Your task to perform on an android device: Find coffee shops on Maps Image 0: 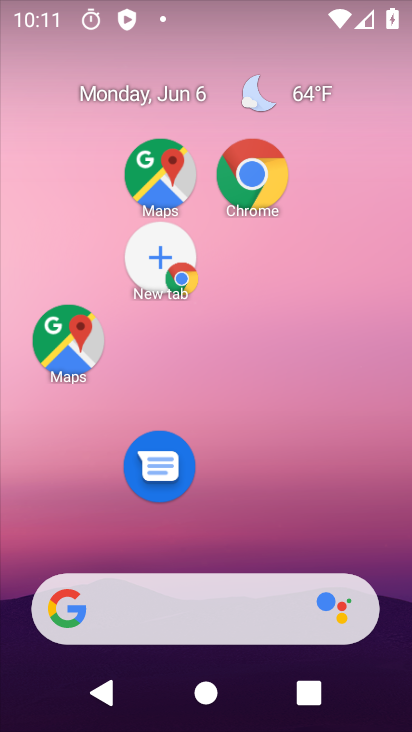
Step 0: drag from (264, 459) to (228, 184)
Your task to perform on an android device: Find coffee shops on Maps Image 1: 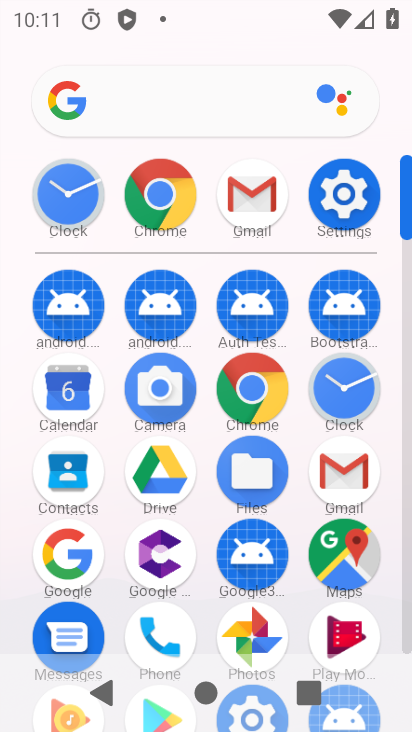
Step 1: click (319, 564)
Your task to perform on an android device: Find coffee shops on Maps Image 2: 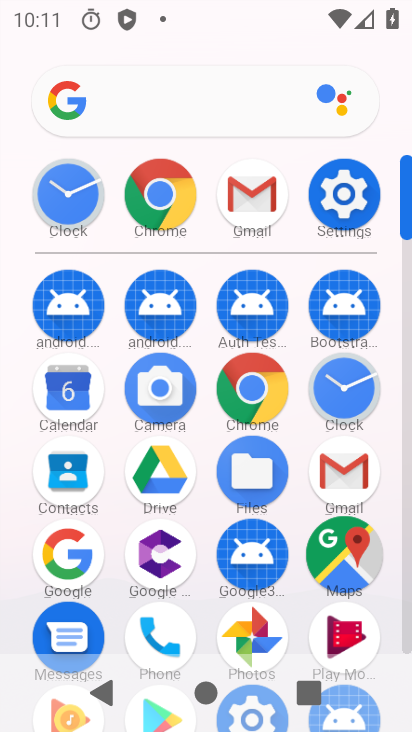
Step 2: click (330, 558)
Your task to perform on an android device: Find coffee shops on Maps Image 3: 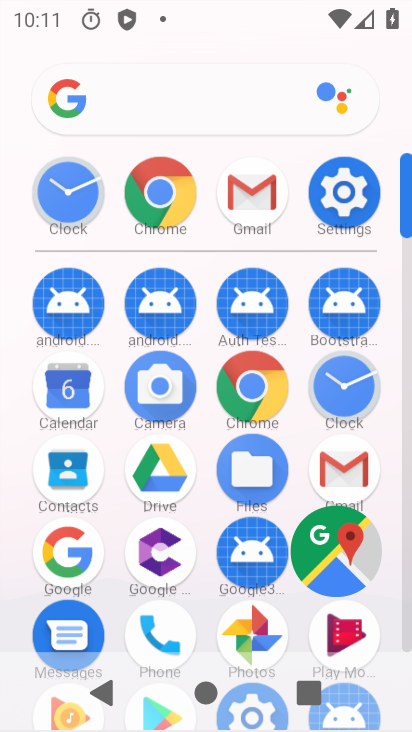
Step 3: click (330, 558)
Your task to perform on an android device: Find coffee shops on Maps Image 4: 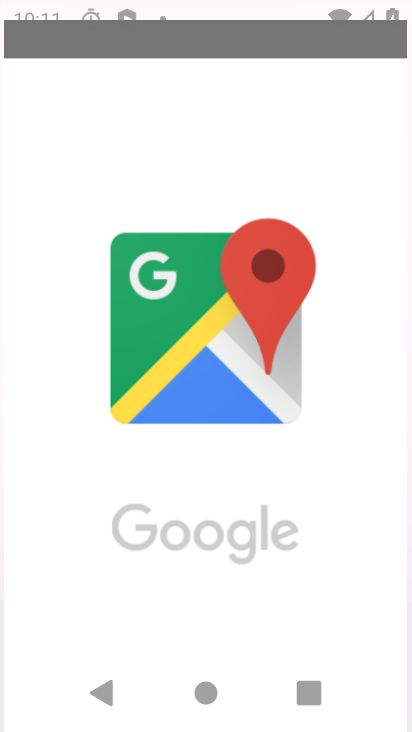
Step 4: click (331, 558)
Your task to perform on an android device: Find coffee shops on Maps Image 5: 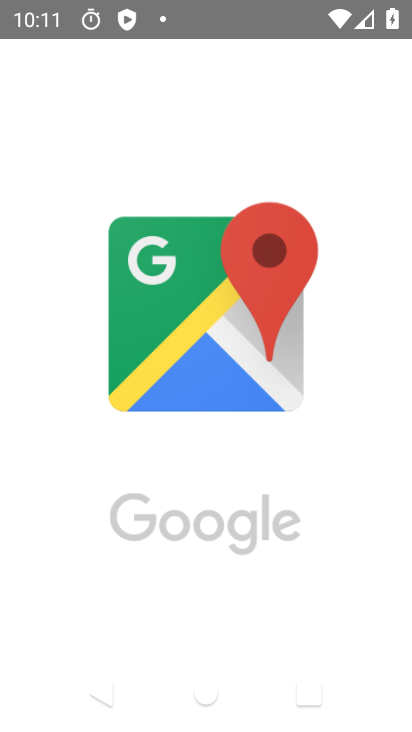
Step 5: click (331, 553)
Your task to perform on an android device: Find coffee shops on Maps Image 6: 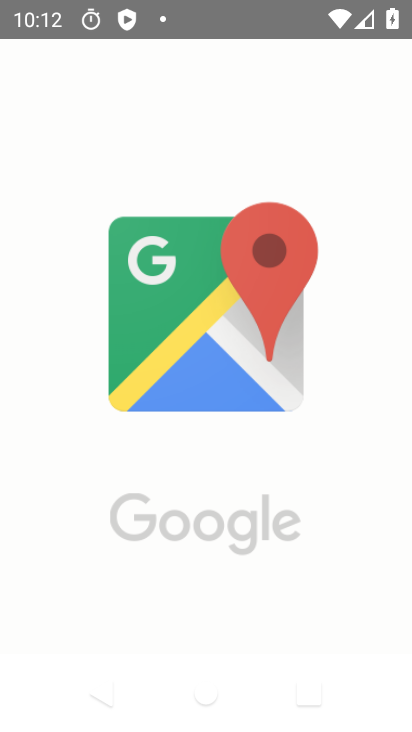
Step 6: click (182, 317)
Your task to perform on an android device: Find coffee shops on Maps Image 7: 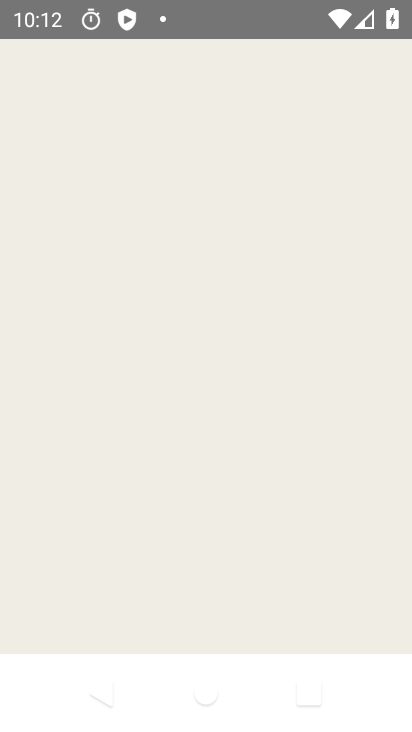
Step 7: click (182, 317)
Your task to perform on an android device: Find coffee shops on Maps Image 8: 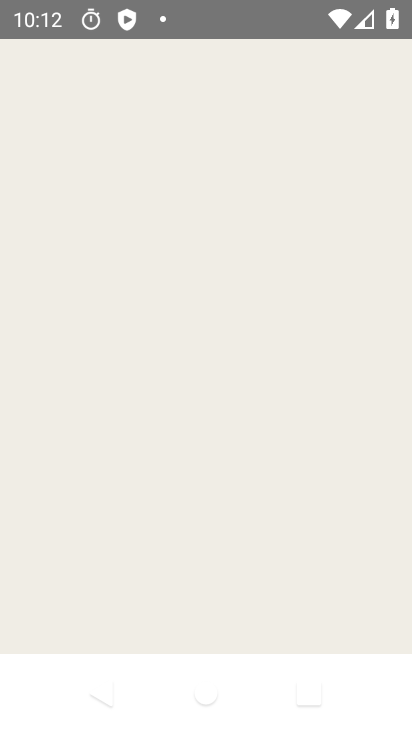
Step 8: click (191, 312)
Your task to perform on an android device: Find coffee shops on Maps Image 9: 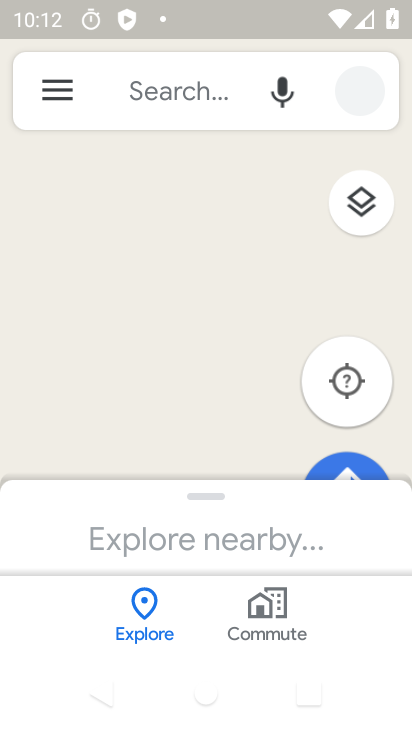
Step 9: click (137, 96)
Your task to perform on an android device: Find coffee shops on Maps Image 10: 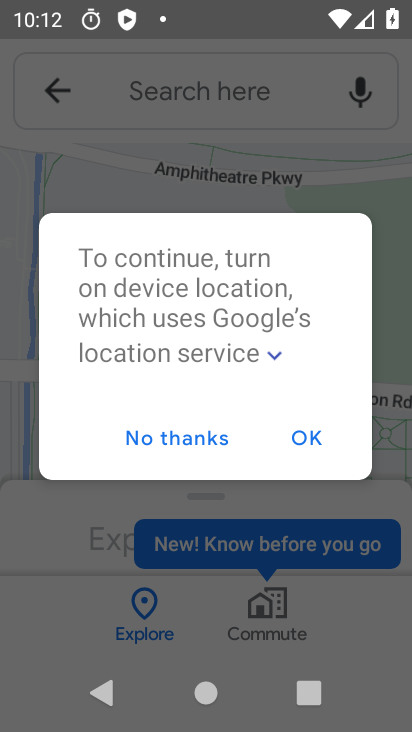
Step 10: click (294, 434)
Your task to perform on an android device: Find coffee shops on Maps Image 11: 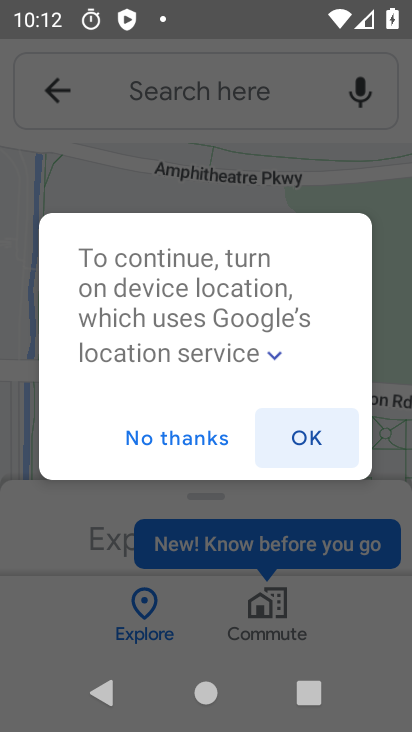
Step 11: click (293, 434)
Your task to perform on an android device: Find coffee shops on Maps Image 12: 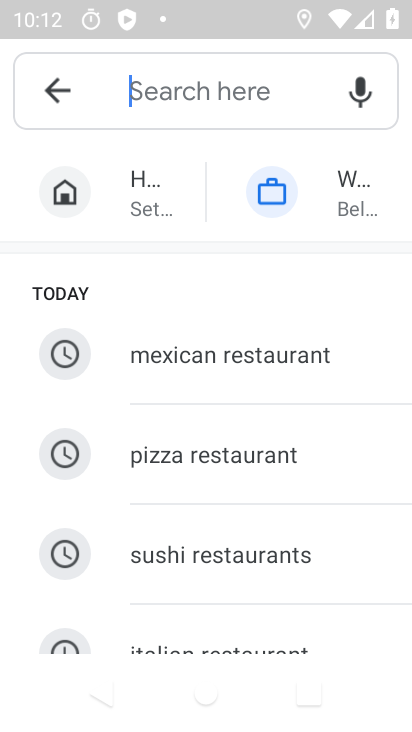
Step 12: type "coffee"
Your task to perform on an android device: Find coffee shops on Maps Image 13: 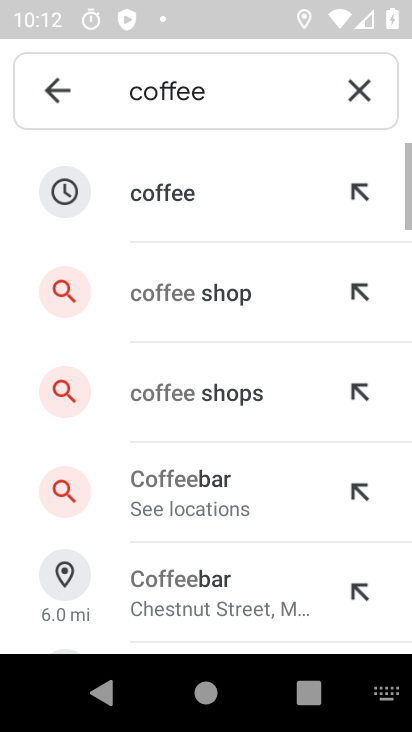
Step 13: click (175, 187)
Your task to perform on an android device: Find coffee shops on Maps Image 14: 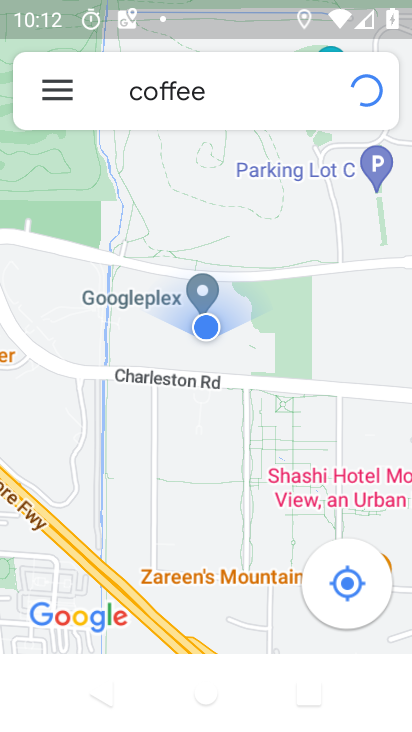
Step 14: click (180, 360)
Your task to perform on an android device: Find coffee shops on Maps Image 15: 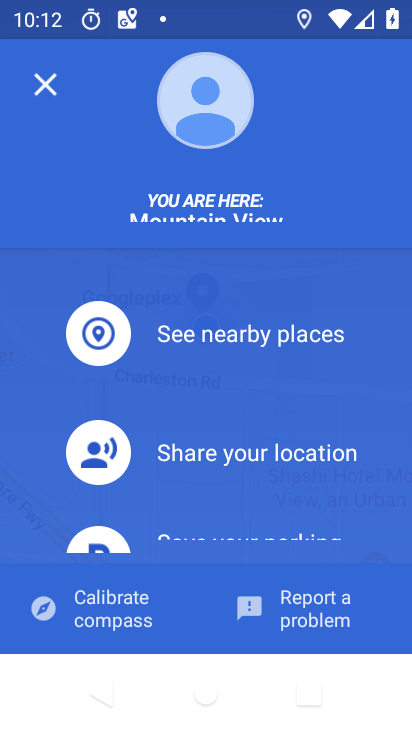
Step 15: task complete